Your task to perform on an android device: read, delete, or share a saved page in the chrome app Image 0: 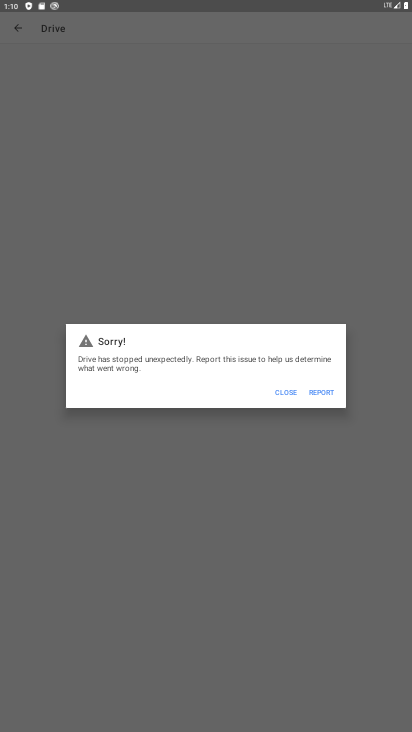
Step 0: press home button
Your task to perform on an android device: read, delete, or share a saved page in the chrome app Image 1: 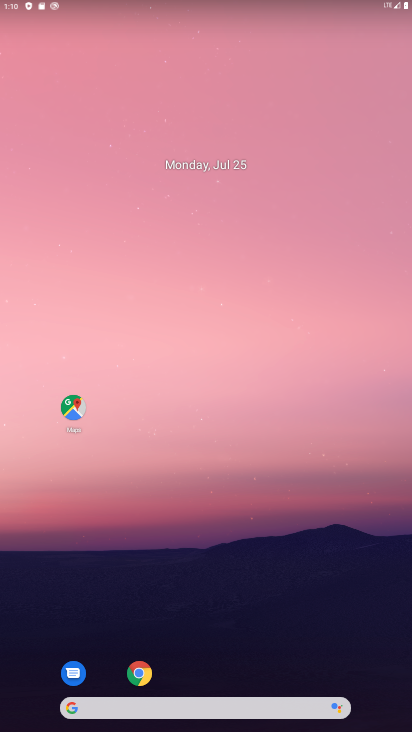
Step 1: click (139, 674)
Your task to perform on an android device: read, delete, or share a saved page in the chrome app Image 2: 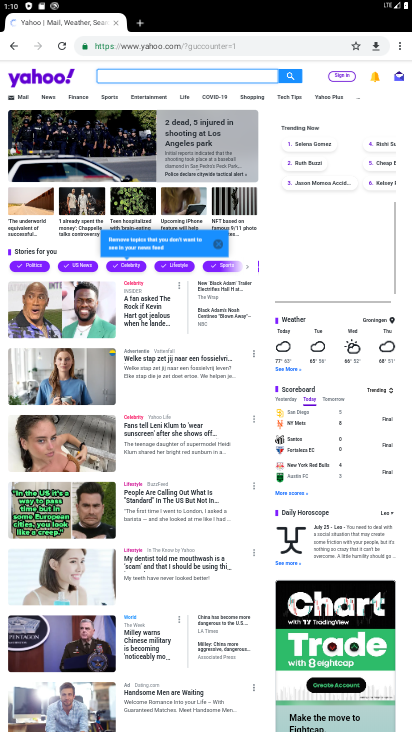
Step 2: click (398, 50)
Your task to perform on an android device: read, delete, or share a saved page in the chrome app Image 3: 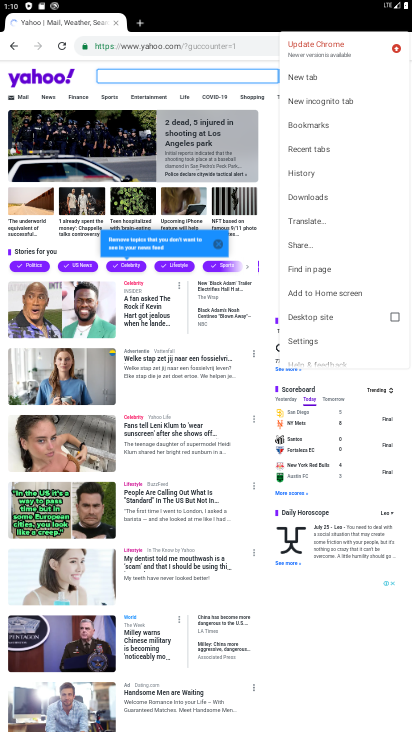
Step 3: click (301, 199)
Your task to perform on an android device: read, delete, or share a saved page in the chrome app Image 4: 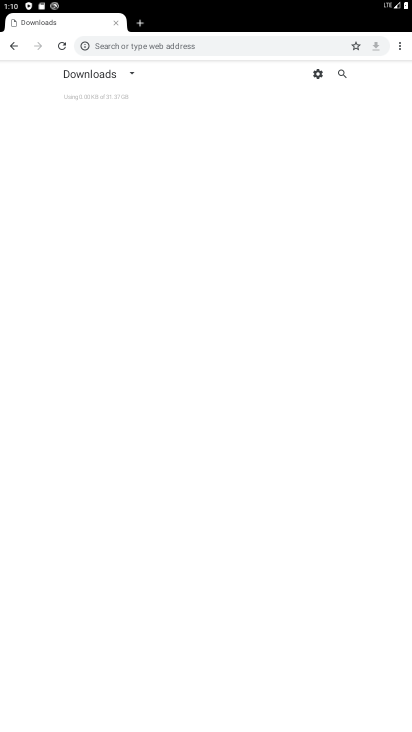
Step 4: click (131, 69)
Your task to perform on an android device: read, delete, or share a saved page in the chrome app Image 5: 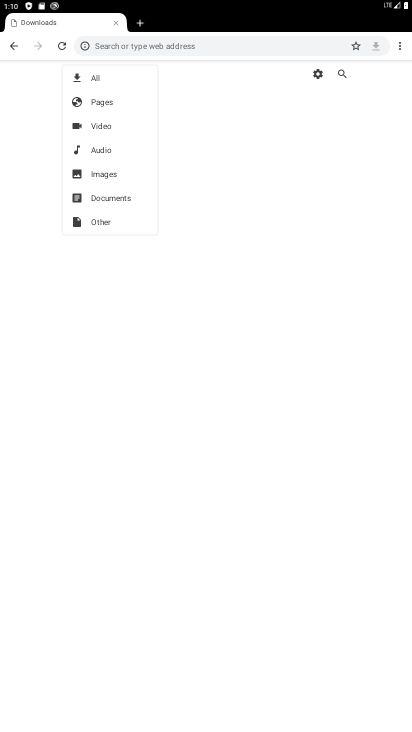
Step 5: click (92, 97)
Your task to perform on an android device: read, delete, or share a saved page in the chrome app Image 6: 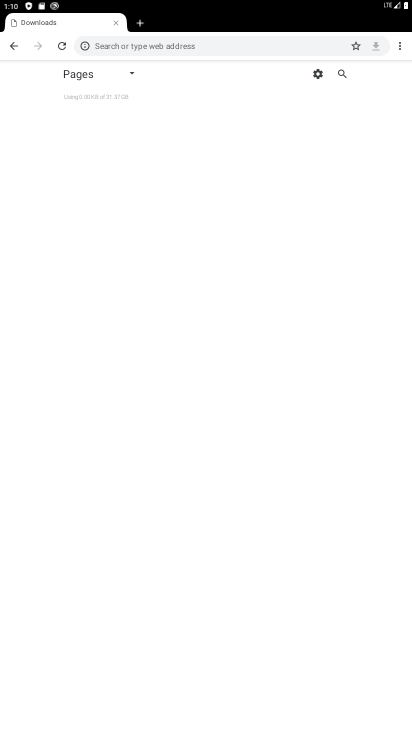
Step 6: task complete